Your task to perform on an android device: toggle location history Image 0: 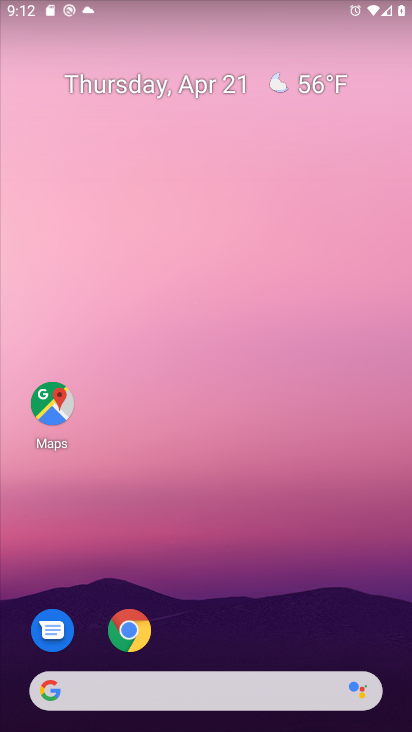
Step 0: click (305, 214)
Your task to perform on an android device: toggle location history Image 1: 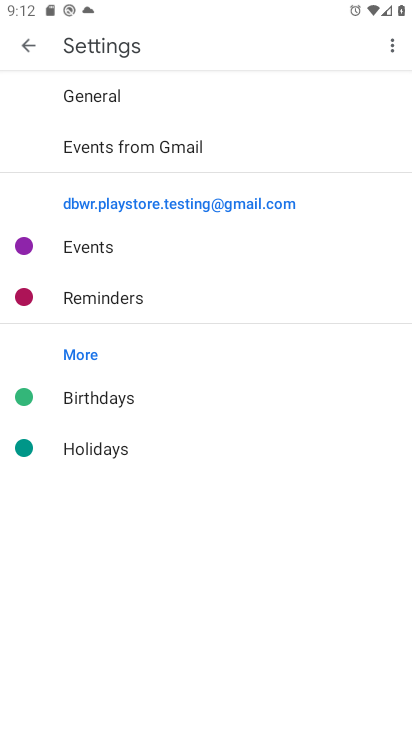
Step 1: press home button
Your task to perform on an android device: toggle location history Image 2: 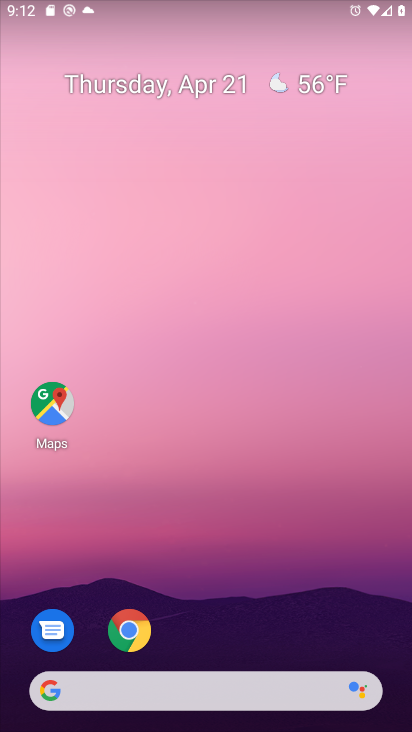
Step 2: drag from (223, 623) to (204, 0)
Your task to perform on an android device: toggle location history Image 3: 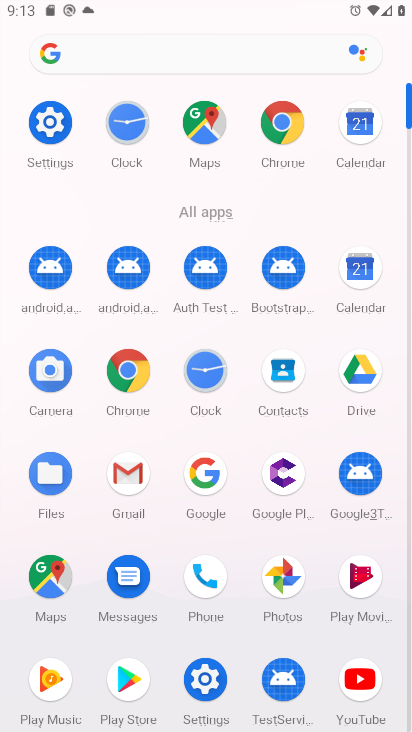
Step 3: click (203, 683)
Your task to perform on an android device: toggle location history Image 4: 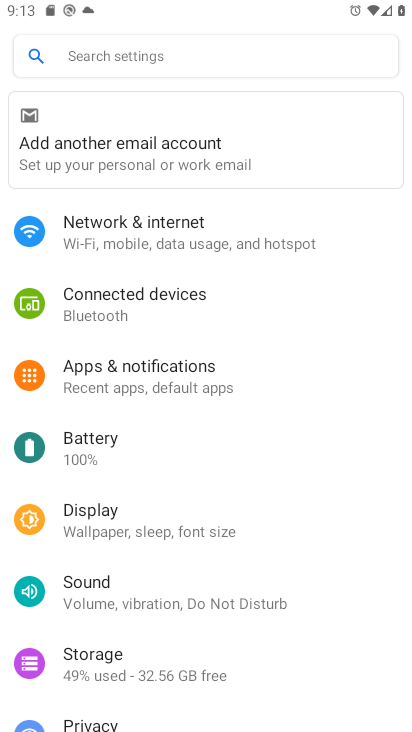
Step 4: drag from (124, 565) to (153, 326)
Your task to perform on an android device: toggle location history Image 5: 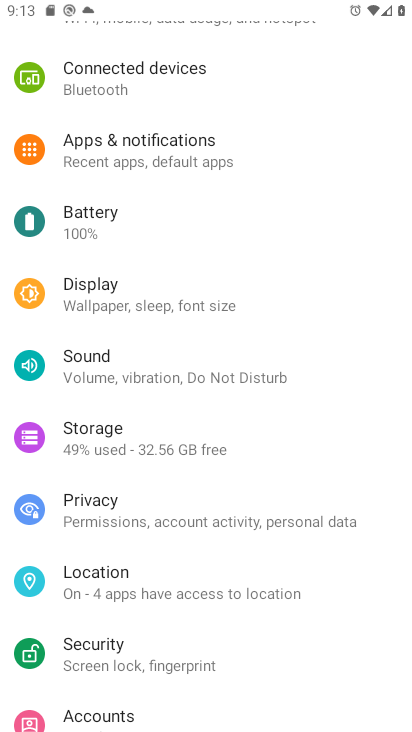
Step 5: click (116, 559)
Your task to perform on an android device: toggle location history Image 6: 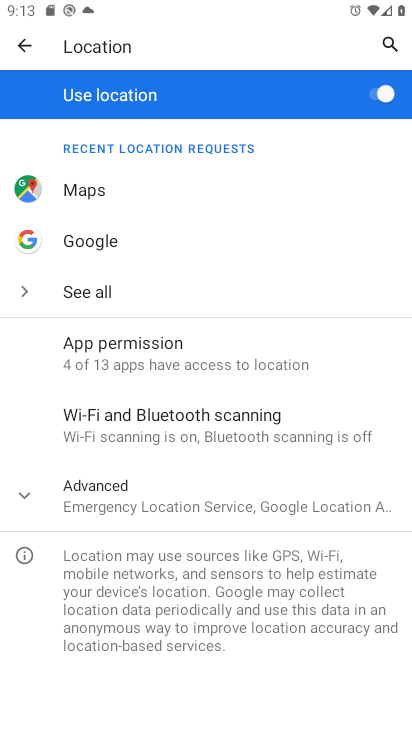
Step 6: click (102, 513)
Your task to perform on an android device: toggle location history Image 7: 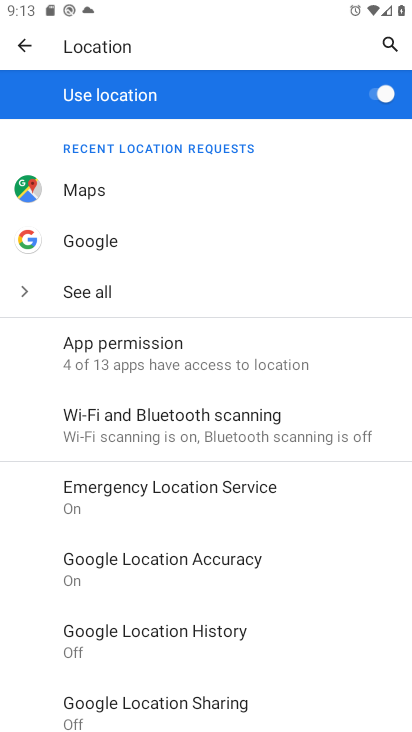
Step 7: click (204, 634)
Your task to perform on an android device: toggle location history Image 8: 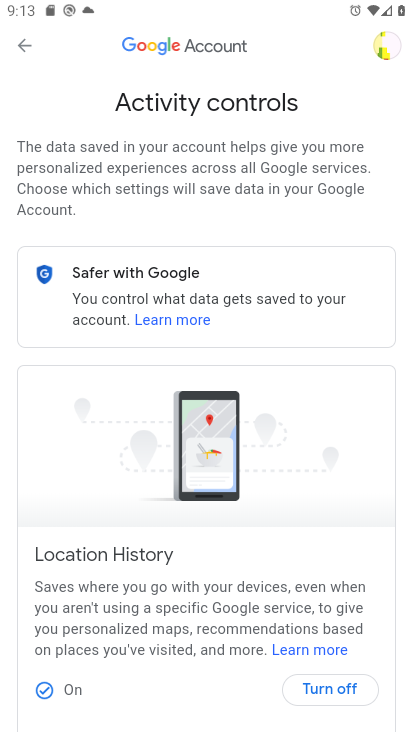
Step 8: drag from (267, 587) to (282, 317)
Your task to perform on an android device: toggle location history Image 9: 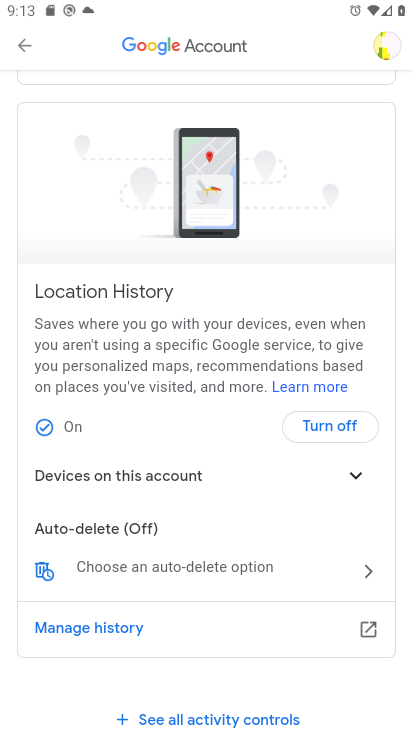
Step 9: click (354, 419)
Your task to perform on an android device: toggle location history Image 10: 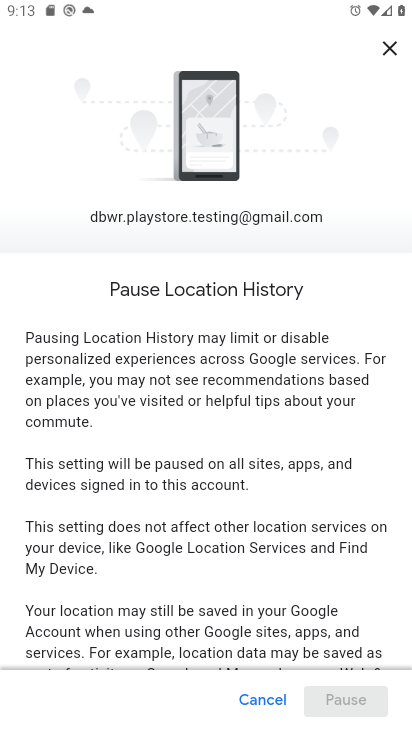
Step 10: drag from (276, 568) to (274, 124)
Your task to perform on an android device: toggle location history Image 11: 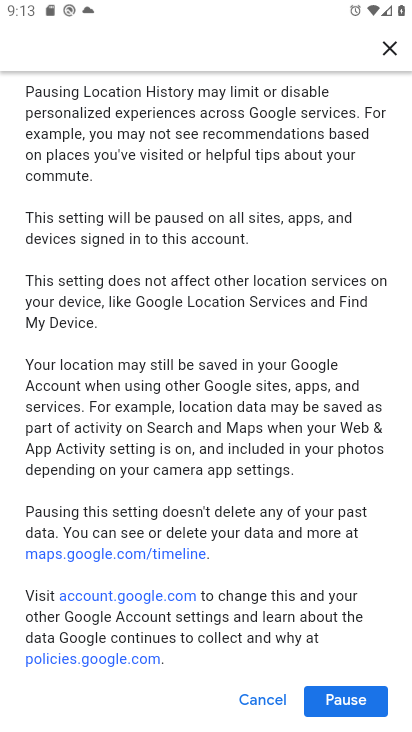
Step 11: drag from (204, 528) to (279, 72)
Your task to perform on an android device: toggle location history Image 12: 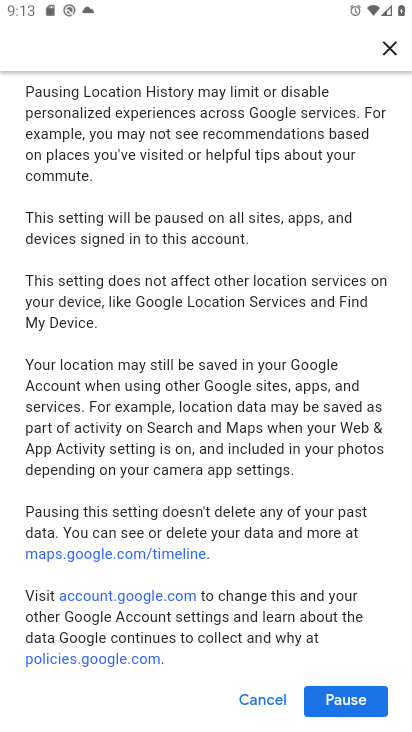
Step 12: click (373, 702)
Your task to perform on an android device: toggle location history Image 13: 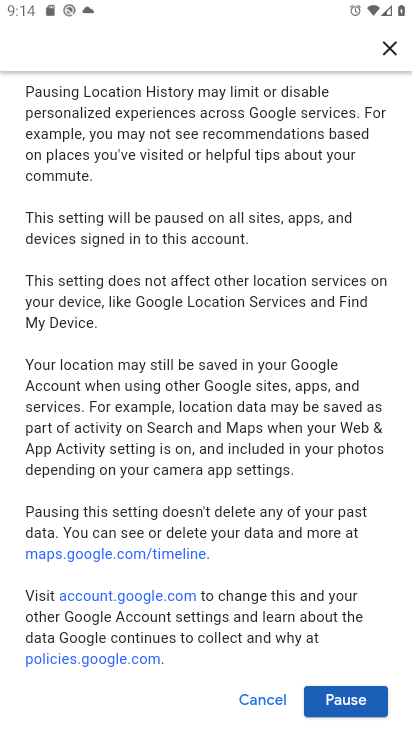
Step 13: click (381, 696)
Your task to perform on an android device: toggle location history Image 14: 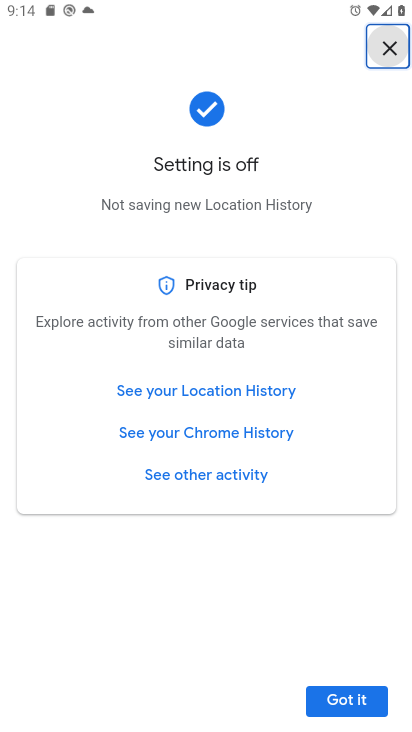
Step 14: click (339, 694)
Your task to perform on an android device: toggle location history Image 15: 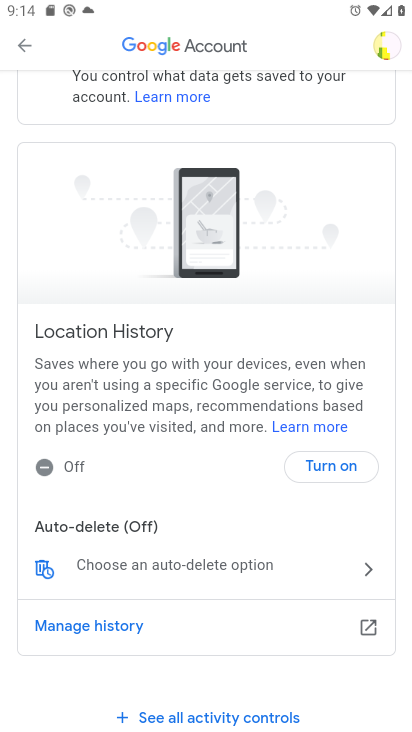
Step 15: task complete